Your task to perform on an android device: Go to network settings Image 0: 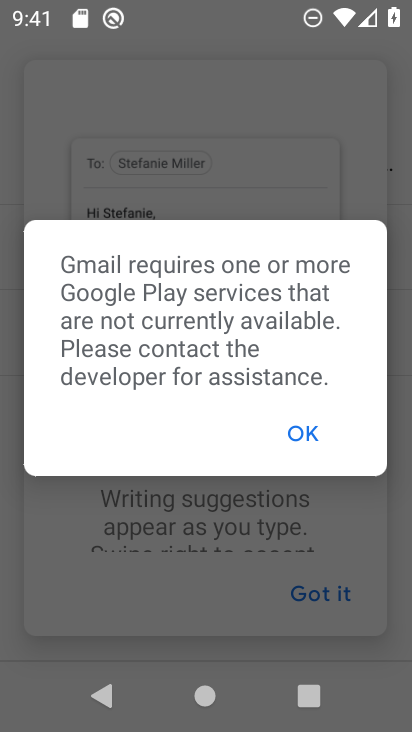
Step 0: press home button
Your task to perform on an android device: Go to network settings Image 1: 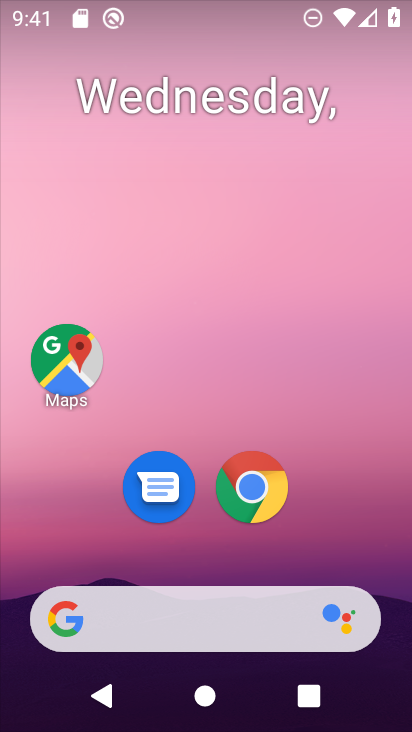
Step 1: drag from (233, 642) to (190, 169)
Your task to perform on an android device: Go to network settings Image 2: 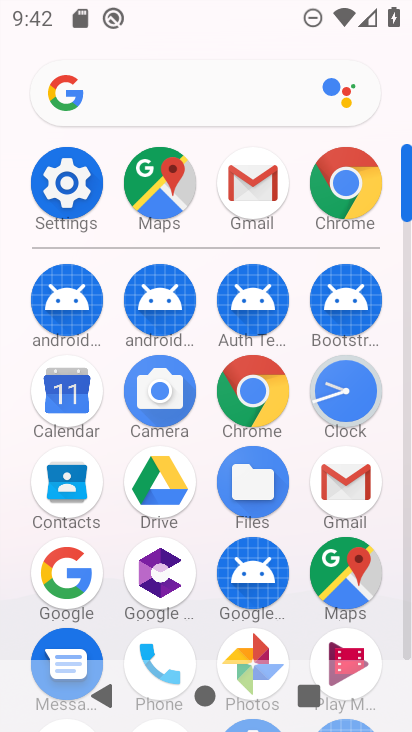
Step 2: click (83, 198)
Your task to perform on an android device: Go to network settings Image 3: 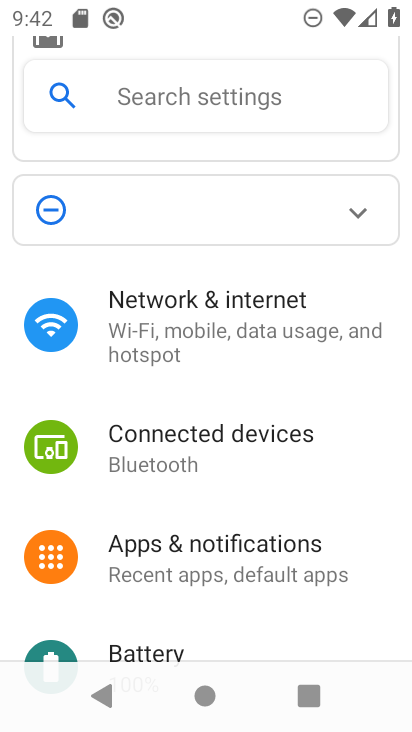
Step 3: click (165, 334)
Your task to perform on an android device: Go to network settings Image 4: 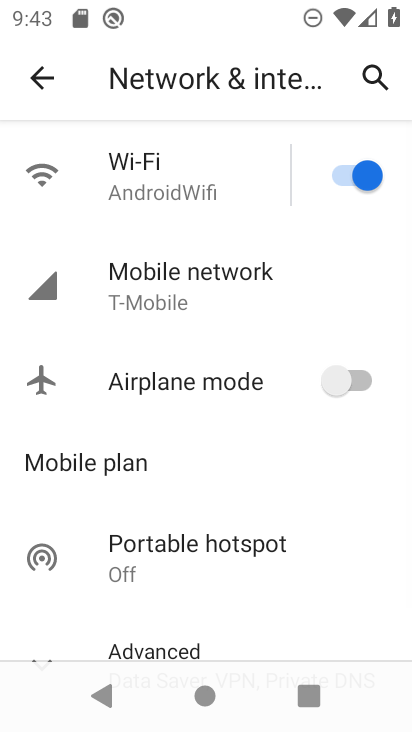
Step 4: task complete